Your task to perform on an android device: delete browsing data in the chrome app Image 0: 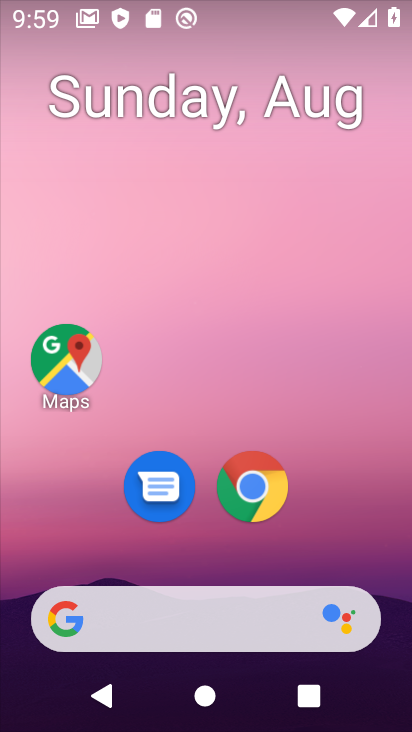
Step 0: click (241, 489)
Your task to perform on an android device: delete browsing data in the chrome app Image 1: 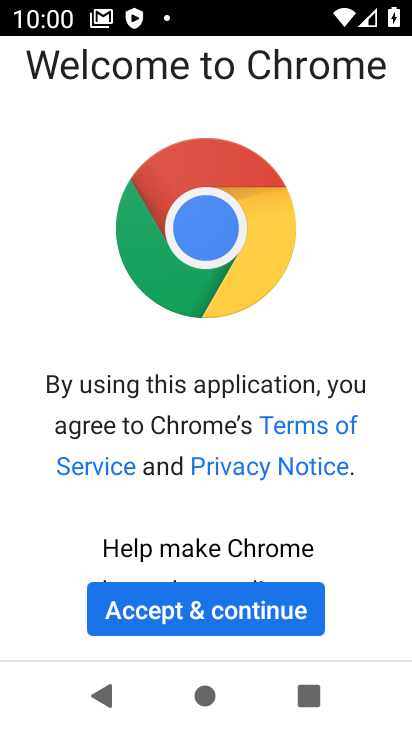
Step 1: click (299, 616)
Your task to perform on an android device: delete browsing data in the chrome app Image 2: 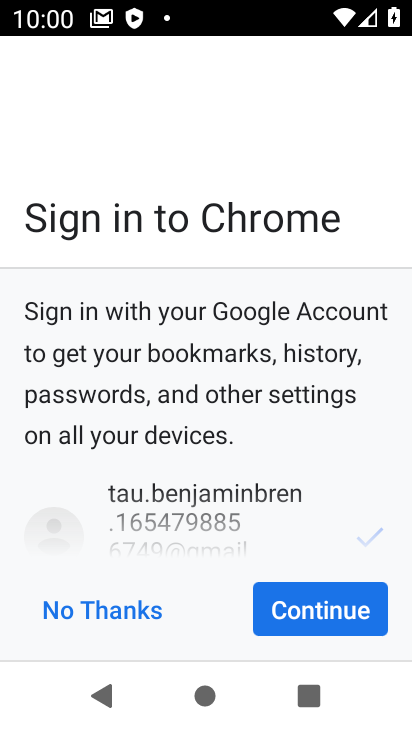
Step 2: click (301, 616)
Your task to perform on an android device: delete browsing data in the chrome app Image 3: 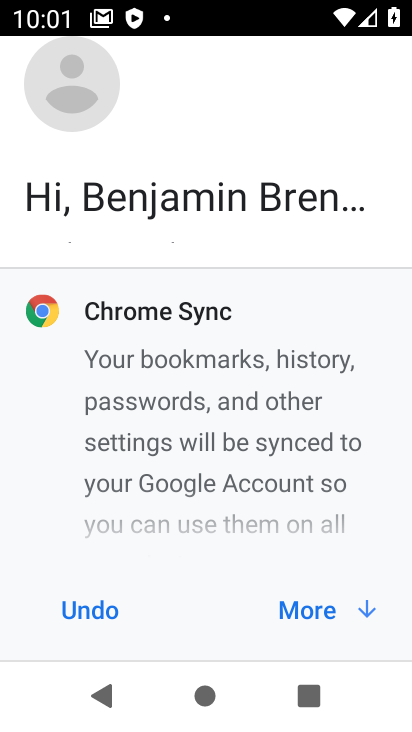
Step 3: click (312, 611)
Your task to perform on an android device: delete browsing data in the chrome app Image 4: 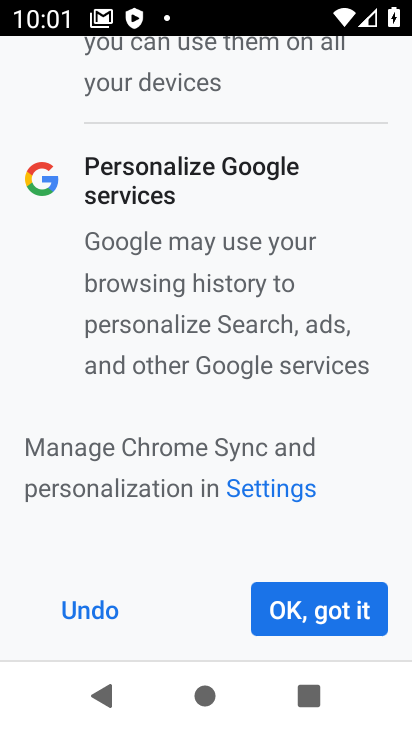
Step 4: click (345, 610)
Your task to perform on an android device: delete browsing data in the chrome app Image 5: 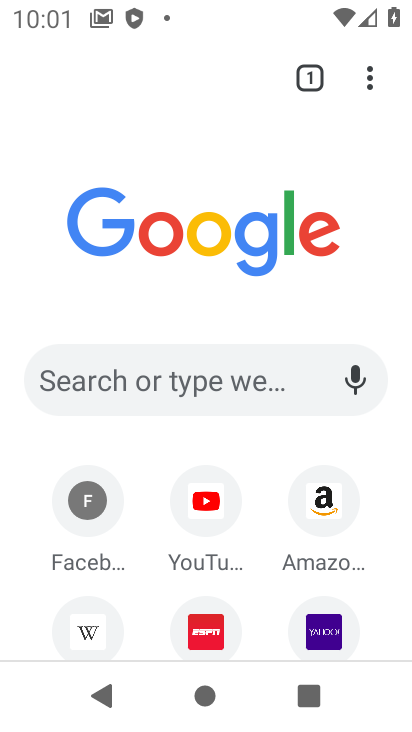
Step 5: click (372, 84)
Your task to perform on an android device: delete browsing data in the chrome app Image 6: 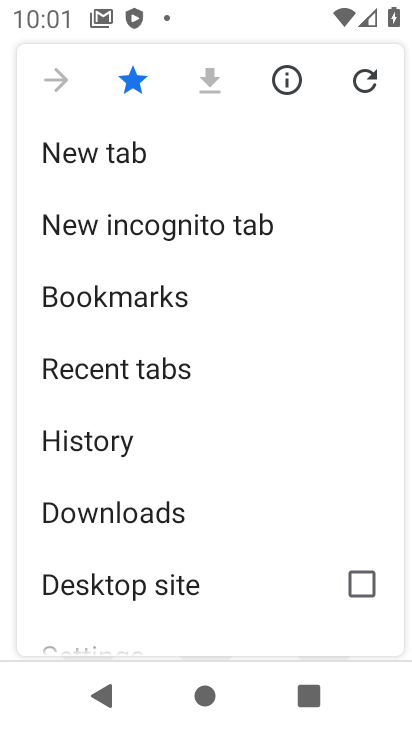
Step 6: click (123, 450)
Your task to perform on an android device: delete browsing data in the chrome app Image 7: 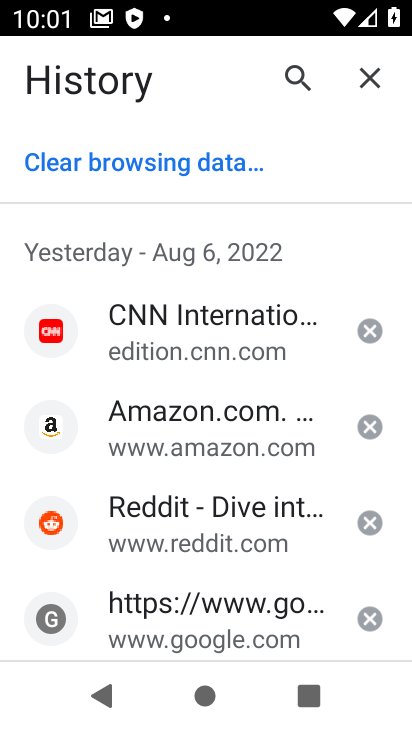
Step 7: click (195, 163)
Your task to perform on an android device: delete browsing data in the chrome app Image 8: 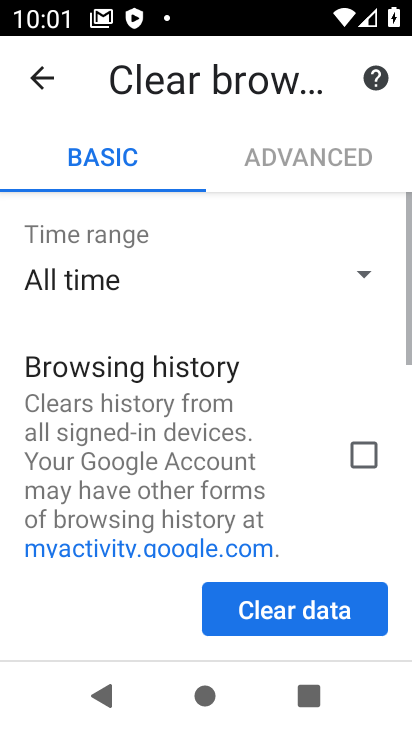
Step 8: click (310, 617)
Your task to perform on an android device: delete browsing data in the chrome app Image 9: 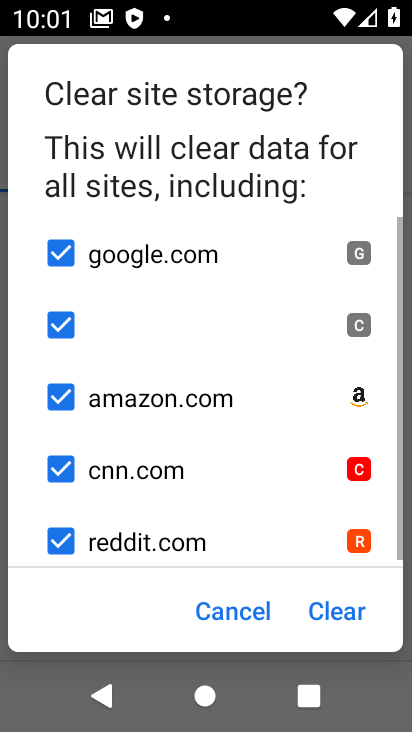
Step 9: click (319, 615)
Your task to perform on an android device: delete browsing data in the chrome app Image 10: 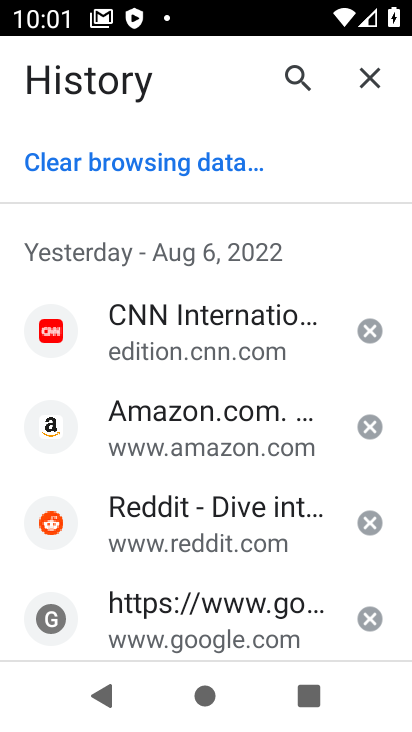
Step 10: task complete